Your task to perform on an android device: Open Google Chrome and open the bookmarks view Image 0: 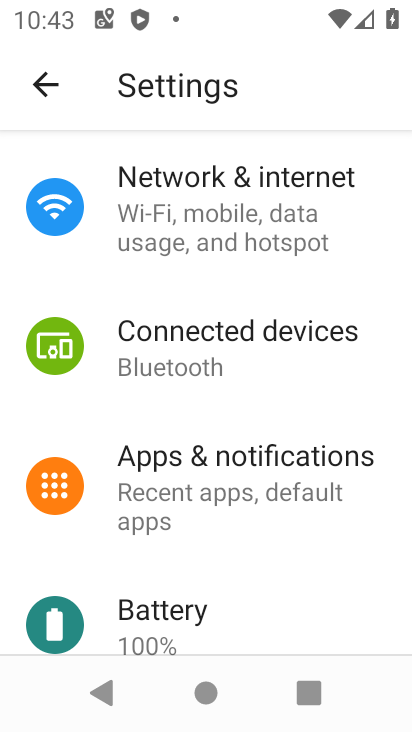
Step 0: press home button
Your task to perform on an android device: Open Google Chrome and open the bookmarks view Image 1: 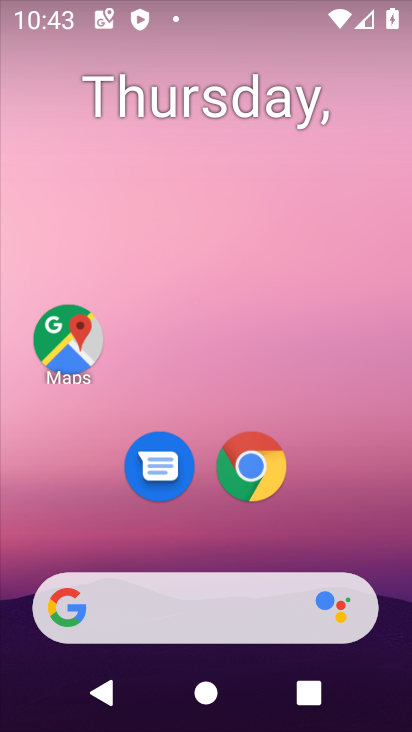
Step 1: click (245, 456)
Your task to perform on an android device: Open Google Chrome and open the bookmarks view Image 2: 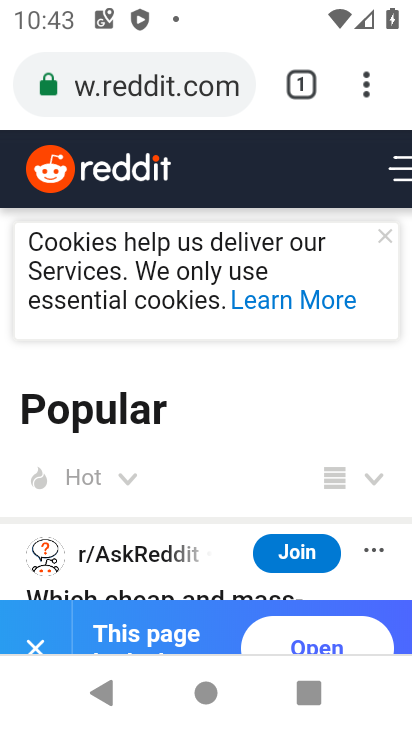
Step 2: task complete